Your task to perform on an android device: turn off priority inbox in the gmail app Image 0: 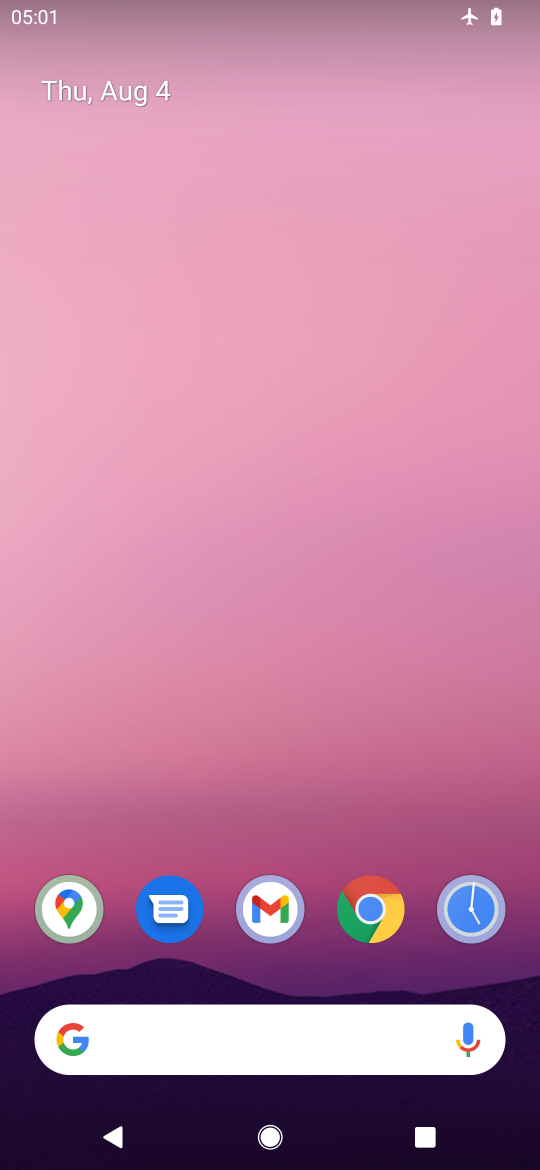
Step 0: press home button
Your task to perform on an android device: turn off priority inbox in the gmail app Image 1: 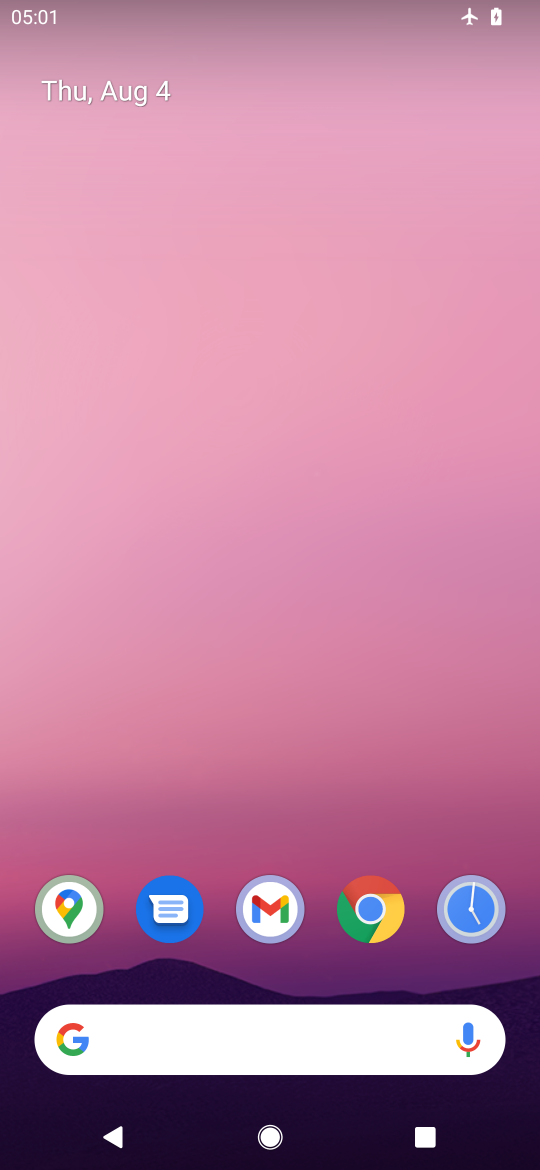
Step 1: drag from (319, 752) to (371, 3)
Your task to perform on an android device: turn off priority inbox in the gmail app Image 2: 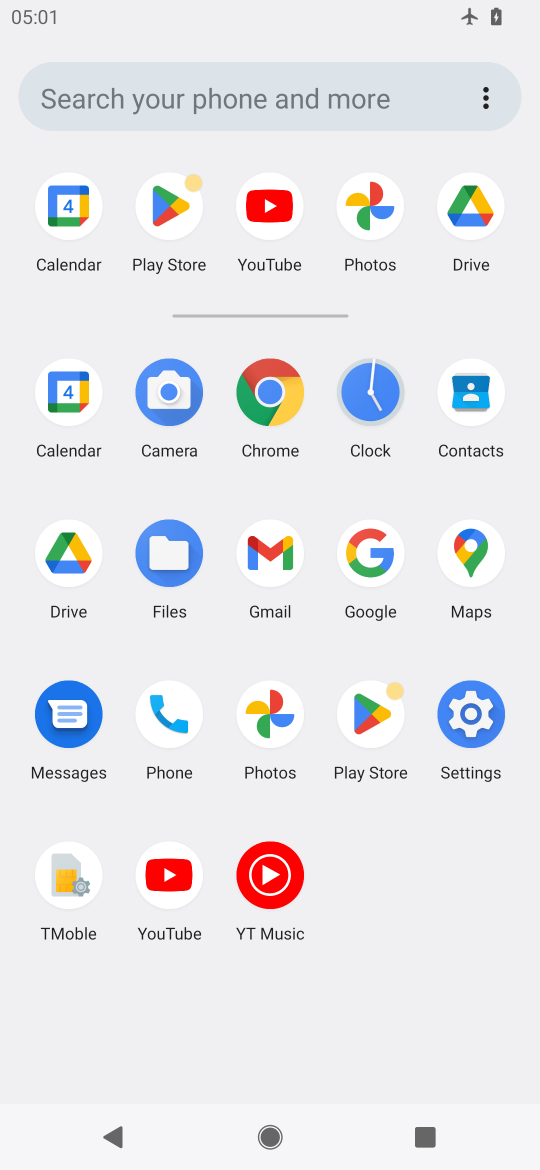
Step 2: click (262, 565)
Your task to perform on an android device: turn off priority inbox in the gmail app Image 3: 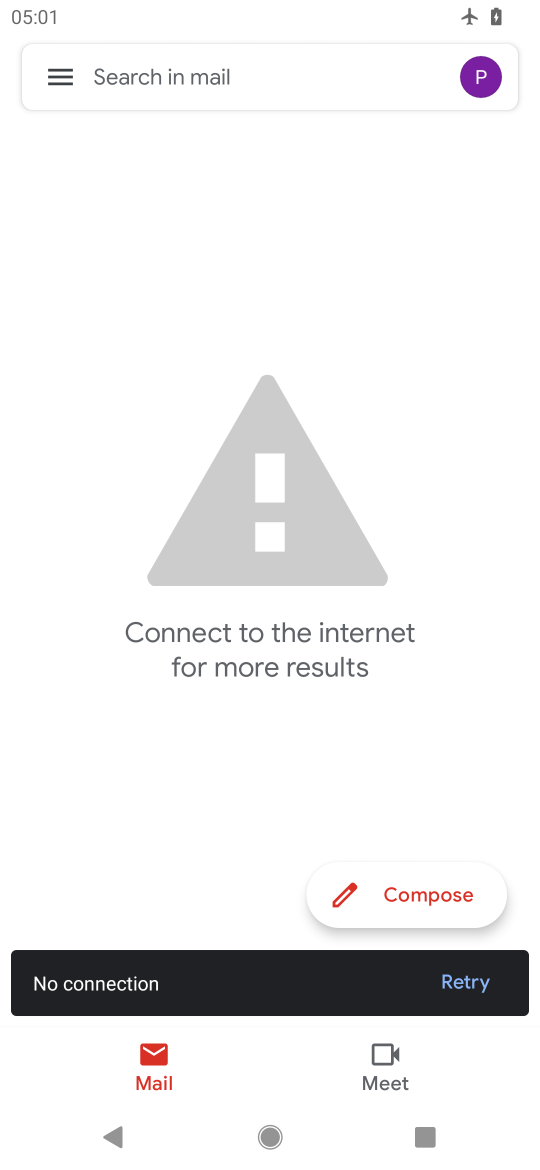
Step 3: click (64, 80)
Your task to perform on an android device: turn off priority inbox in the gmail app Image 4: 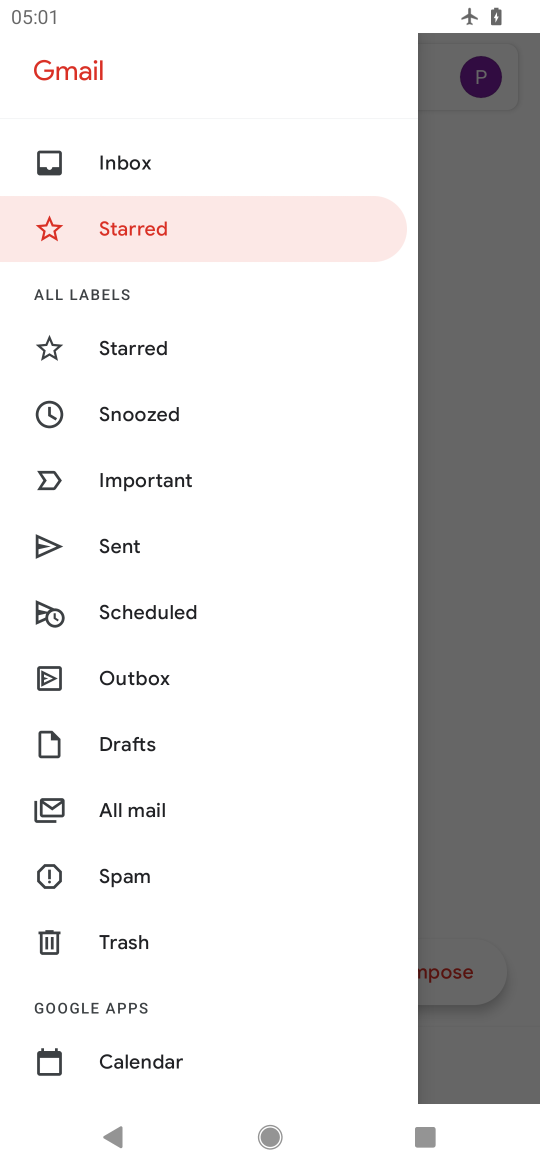
Step 4: drag from (139, 991) to (134, 215)
Your task to perform on an android device: turn off priority inbox in the gmail app Image 5: 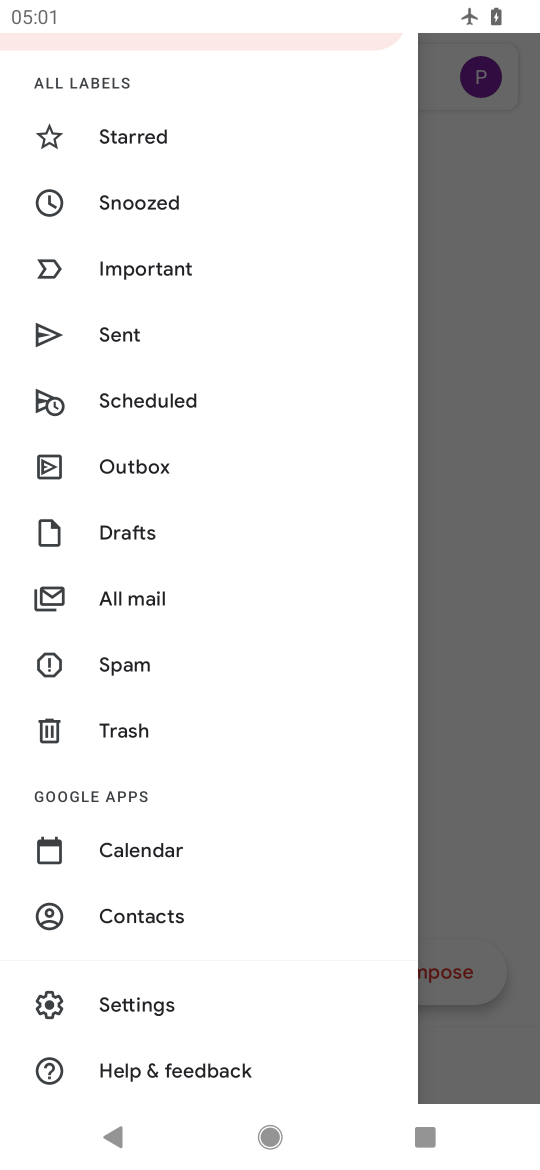
Step 5: click (150, 1006)
Your task to perform on an android device: turn off priority inbox in the gmail app Image 6: 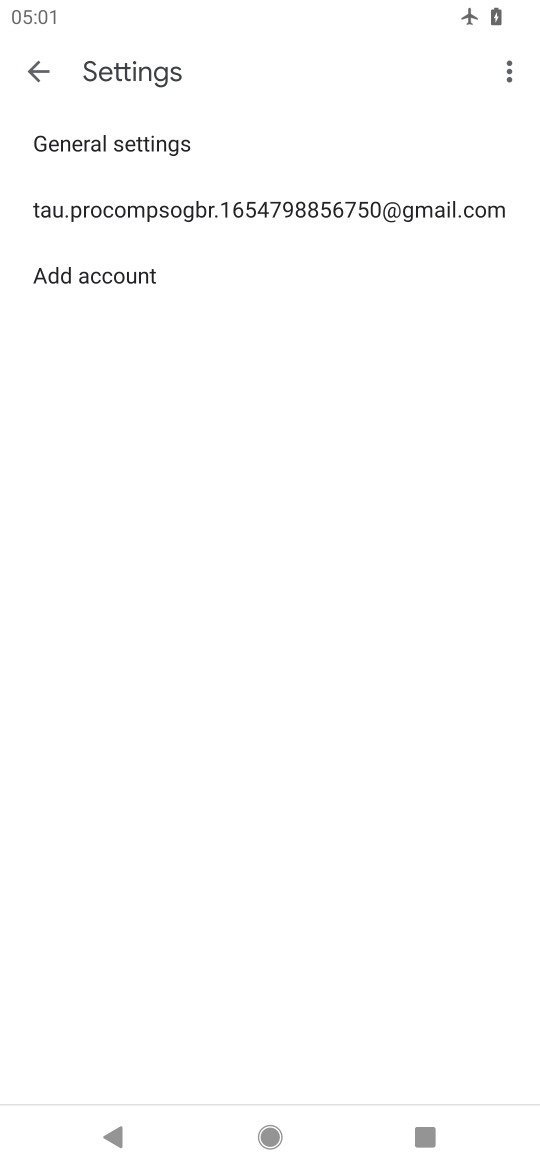
Step 6: click (103, 213)
Your task to perform on an android device: turn off priority inbox in the gmail app Image 7: 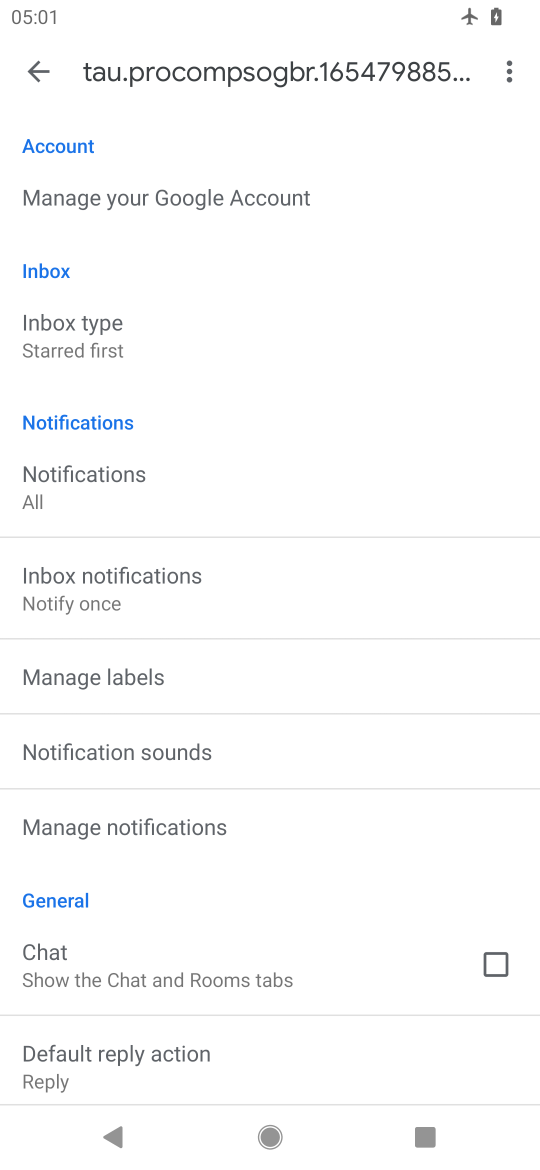
Step 7: task complete